Your task to perform on an android device: turn on the 12-hour format for clock Image 0: 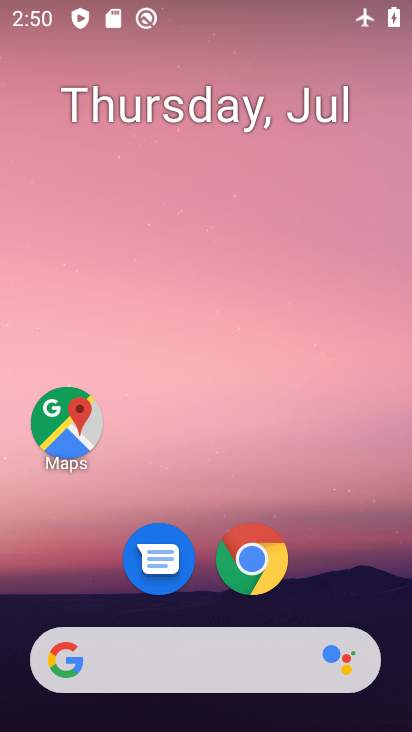
Step 0: press home button
Your task to perform on an android device: turn on the 12-hour format for clock Image 1: 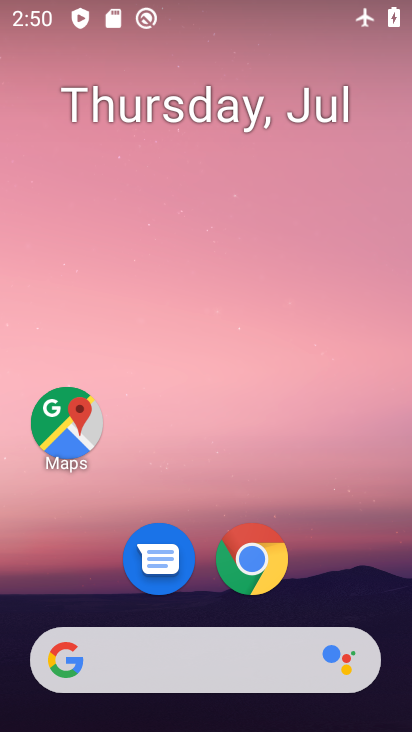
Step 1: drag from (233, 680) to (215, 149)
Your task to perform on an android device: turn on the 12-hour format for clock Image 2: 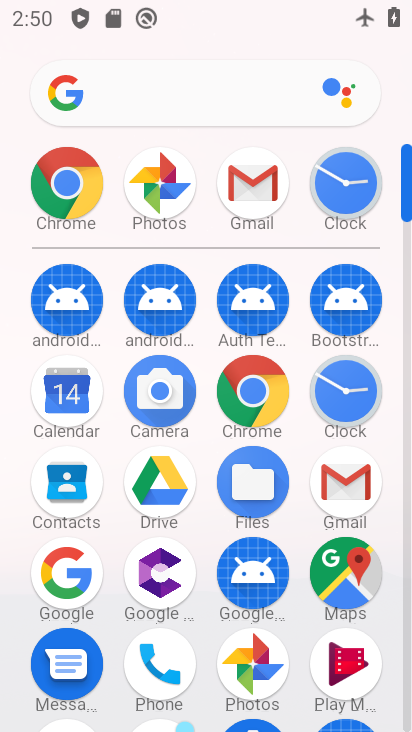
Step 2: click (352, 408)
Your task to perform on an android device: turn on the 12-hour format for clock Image 3: 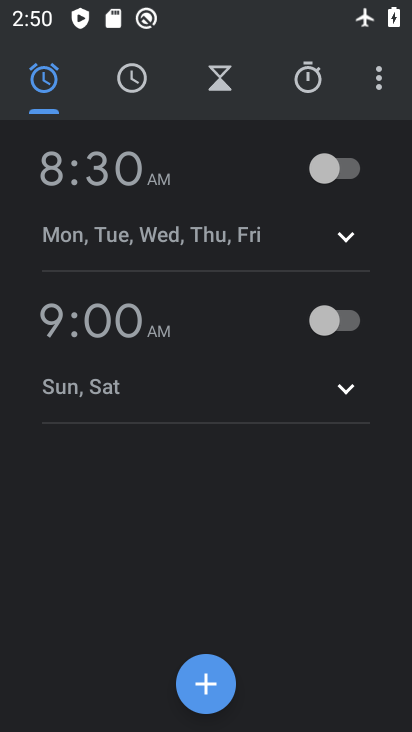
Step 3: click (366, 94)
Your task to perform on an android device: turn on the 12-hour format for clock Image 4: 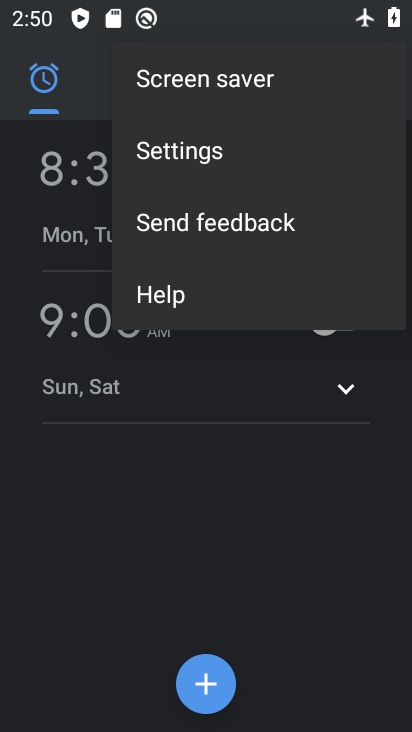
Step 4: click (214, 152)
Your task to perform on an android device: turn on the 12-hour format for clock Image 5: 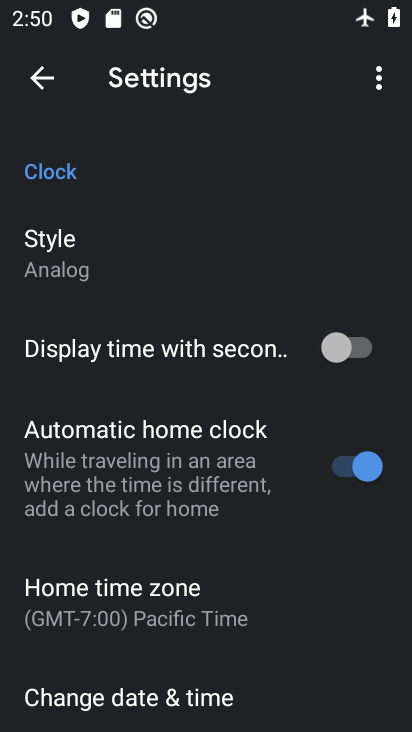
Step 5: drag from (196, 540) to (176, 231)
Your task to perform on an android device: turn on the 12-hour format for clock Image 6: 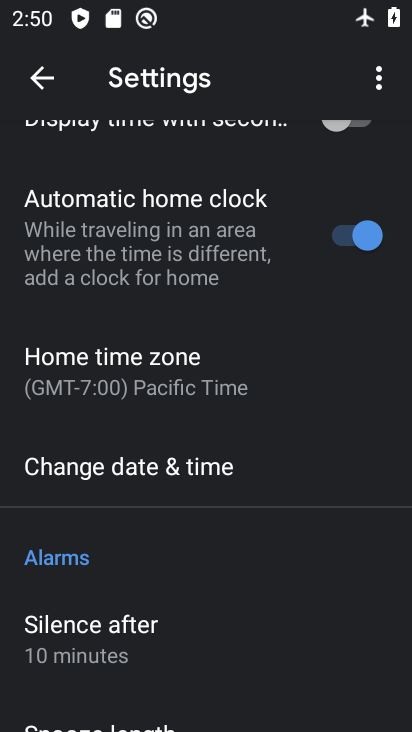
Step 6: click (191, 480)
Your task to perform on an android device: turn on the 12-hour format for clock Image 7: 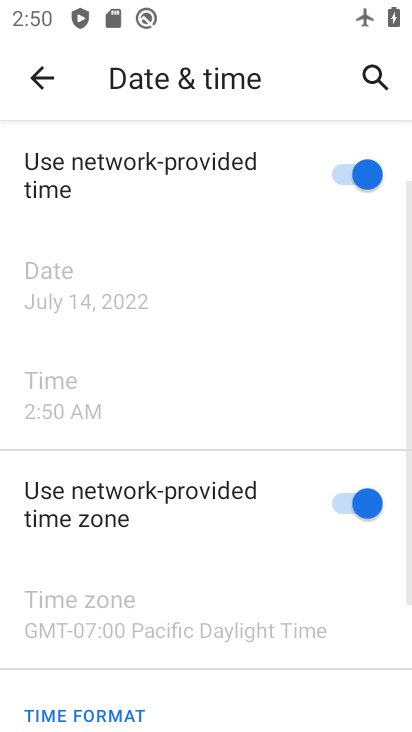
Step 7: task complete